Your task to perform on an android device: turn on location history Image 0: 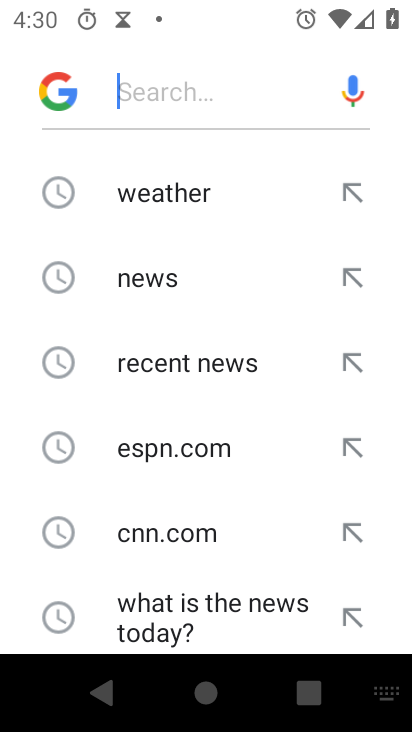
Step 0: press home button
Your task to perform on an android device: turn on location history Image 1: 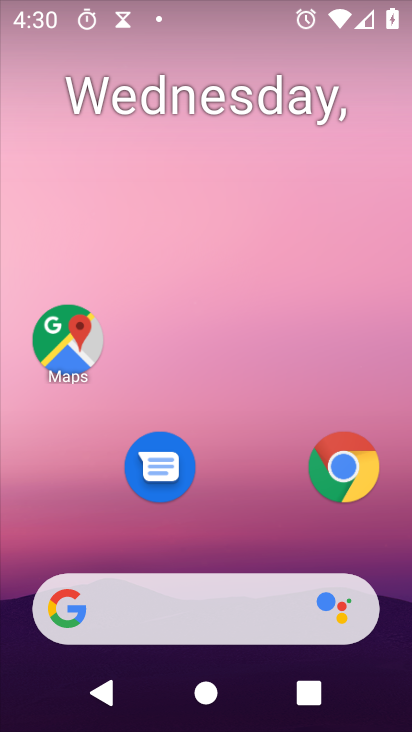
Step 1: drag from (230, 557) to (65, 133)
Your task to perform on an android device: turn on location history Image 2: 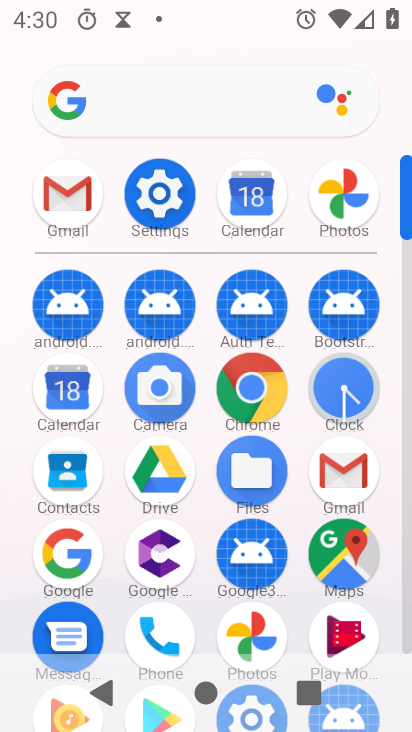
Step 2: click (173, 210)
Your task to perform on an android device: turn on location history Image 3: 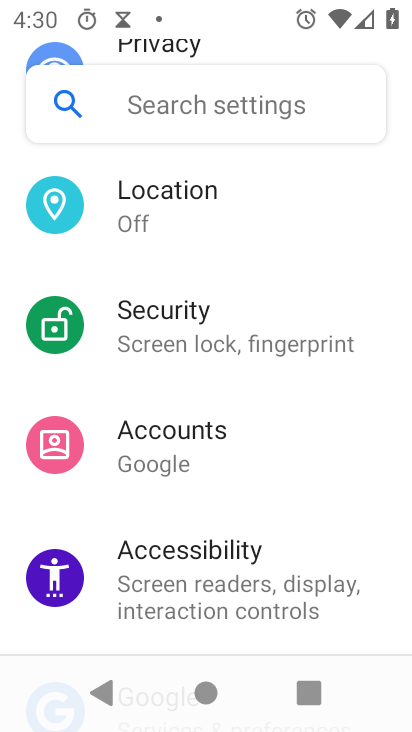
Step 3: click (238, 198)
Your task to perform on an android device: turn on location history Image 4: 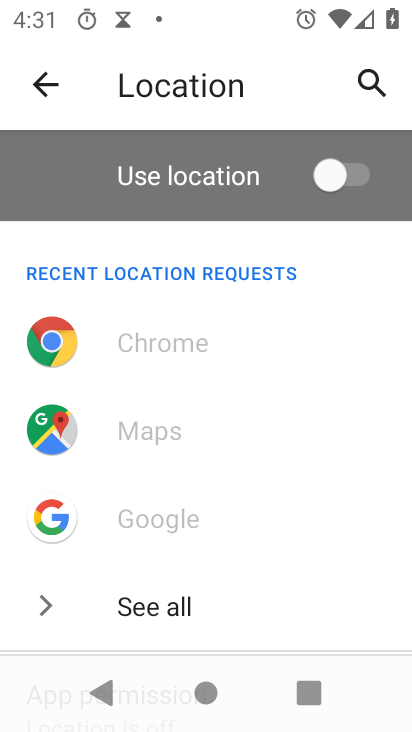
Step 4: drag from (310, 624) to (282, 163)
Your task to perform on an android device: turn on location history Image 5: 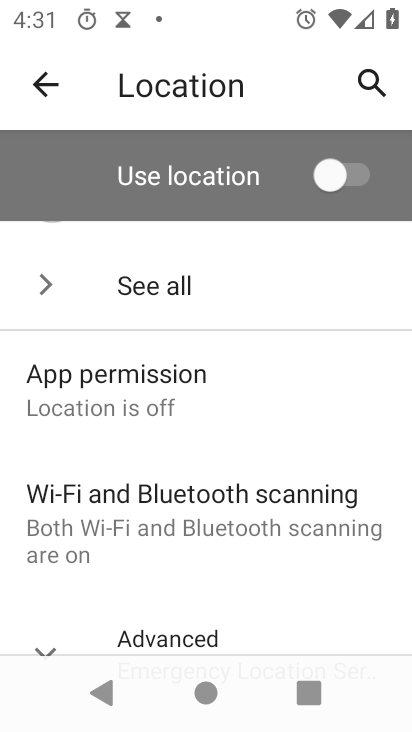
Step 5: drag from (310, 545) to (296, 223)
Your task to perform on an android device: turn on location history Image 6: 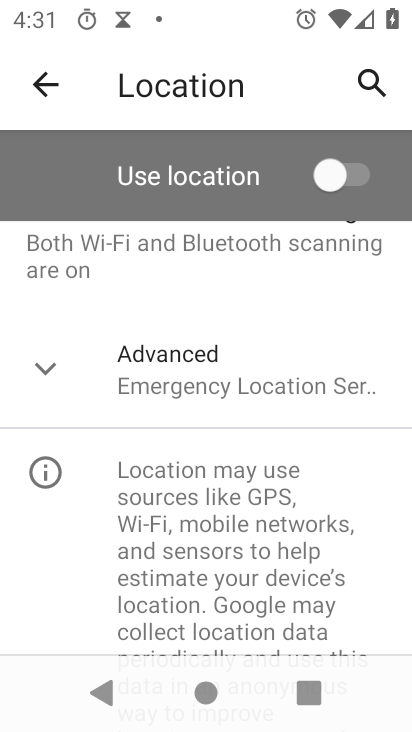
Step 6: drag from (290, 476) to (278, 667)
Your task to perform on an android device: turn on location history Image 7: 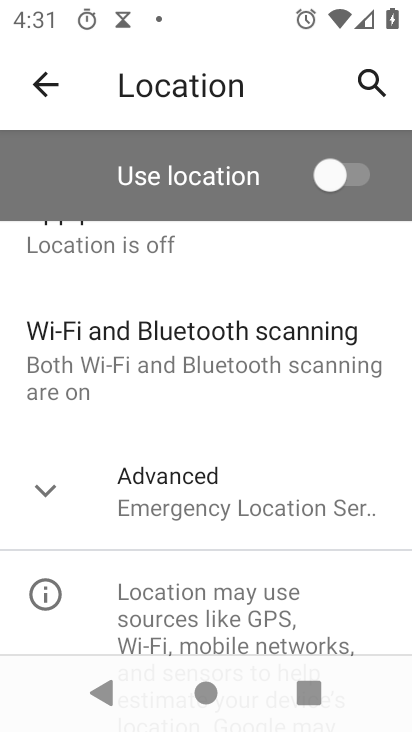
Step 7: drag from (273, 265) to (284, 509)
Your task to perform on an android device: turn on location history Image 8: 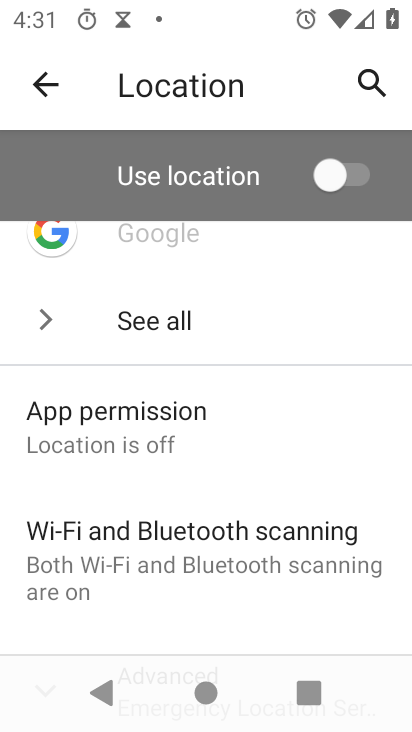
Step 8: press home button
Your task to perform on an android device: turn on location history Image 9: 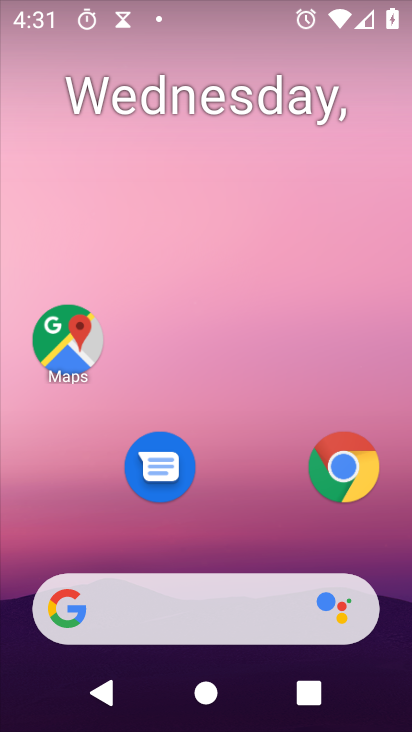
Step 9: click (282, 516)
Your task to perform on an android device: turn on location history Image 10: 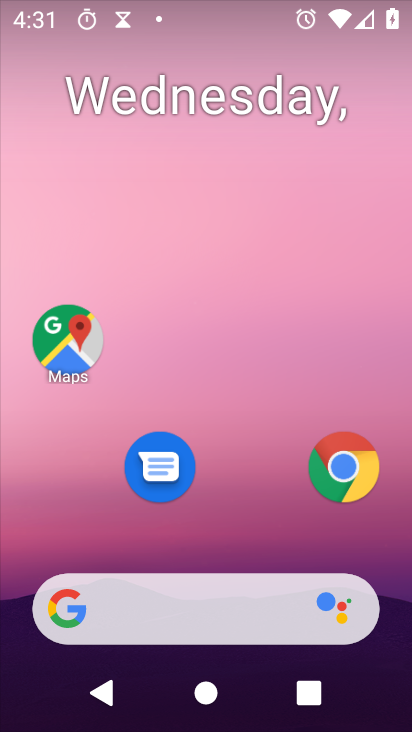
Step 10: click (83, 352)
Your task to perform on an android device: turn on location history Image 11: 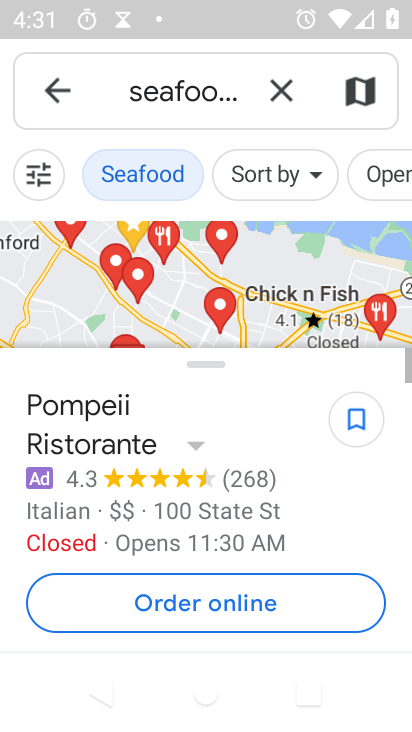
Step 11: click (62, 93)
Your task to perform on an android device: turn on location history Image 12: 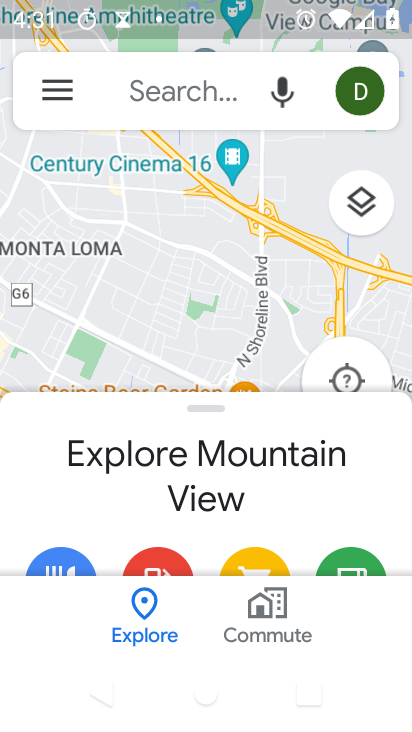
Step 12: click (68, 105)
Your task to perform on an android device: turn on location history Image 13: 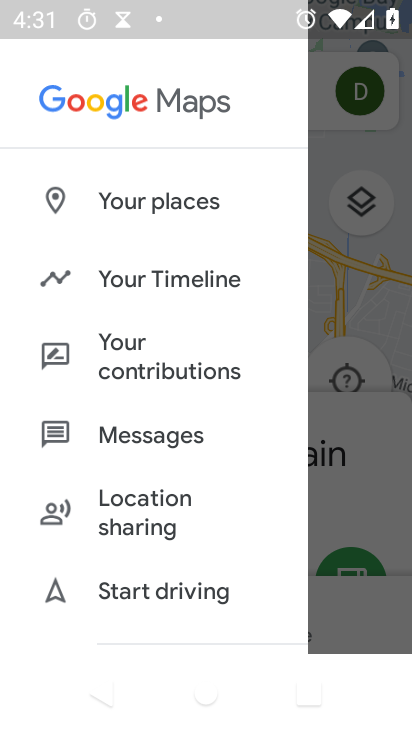
Step 13: click (166, 284)
Your task to perform on an android device: turn on location history Image 14: 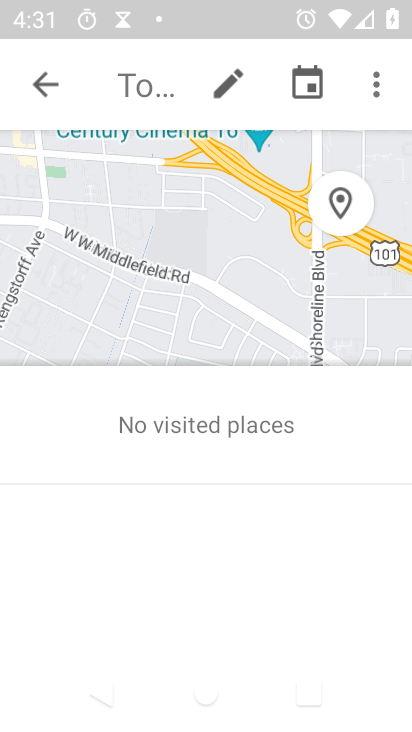
Step 14: click (392, 82)
Your task to perform on an android device: turn on location history Image 15: 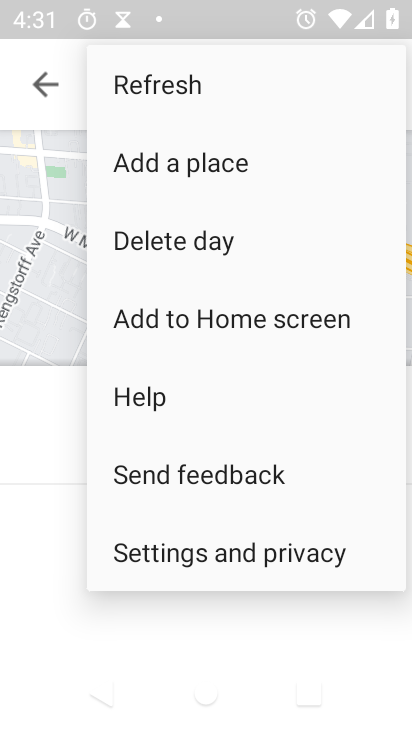
Step 15: click (254, 570)
Your task to perform on an android device: turn on location history Image 16: 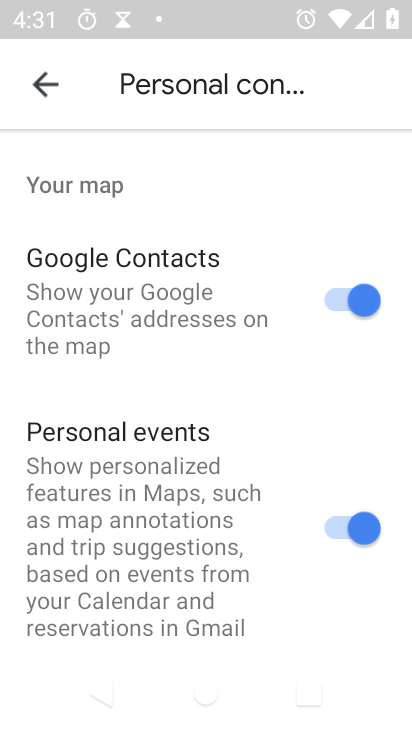
Step 16: drag from (275, 647) to (223, 164)
Your task to perform on an android device: turn on location history Image 17: 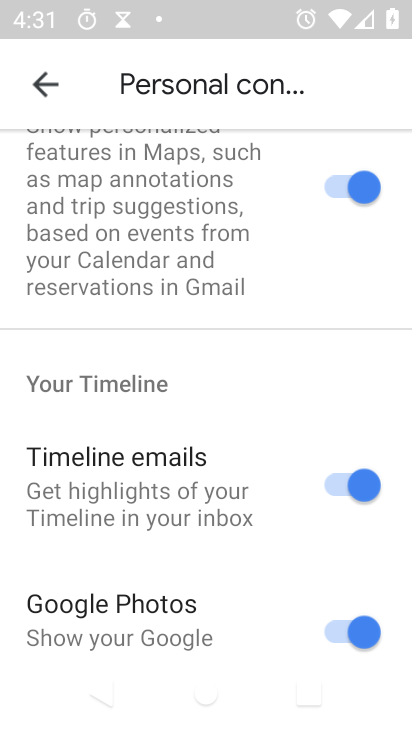
Step 17: drag from (246, 596) to (178, 128)
Your task to perform on an android device: turn on location history Image 18: 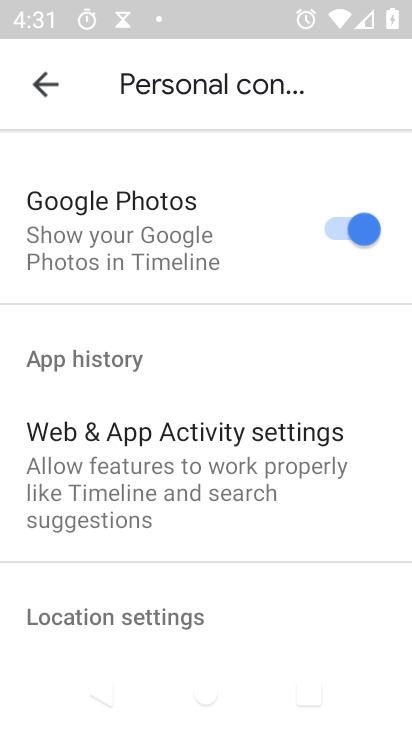
Step 18: drag from (208, 562) to (184, 122)
Your task to perform on an android device: turn on location history Image 19: 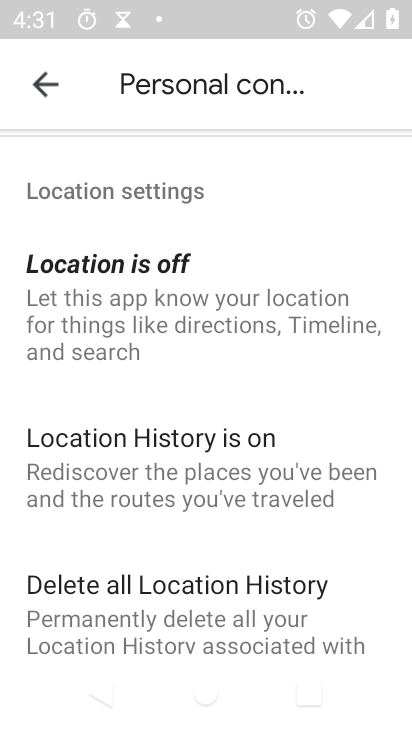
Step 19: click (209, 501)
Your task to perform on an android device: turn on location history Image 20: 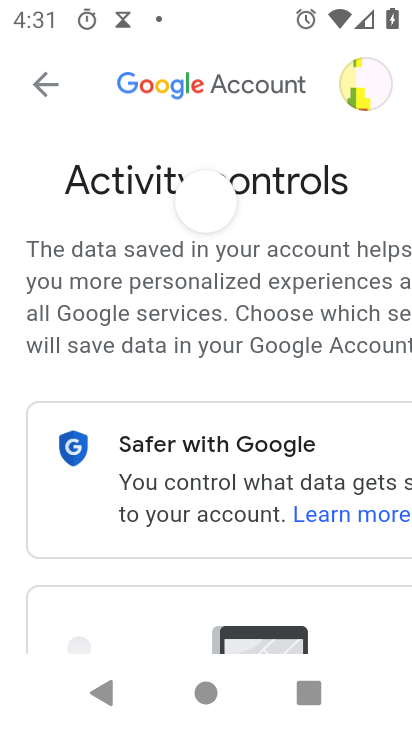
Step 20: drag from (283, 623) to (209, 94)
Your task to perform on an android device: turn on location history Image 21: 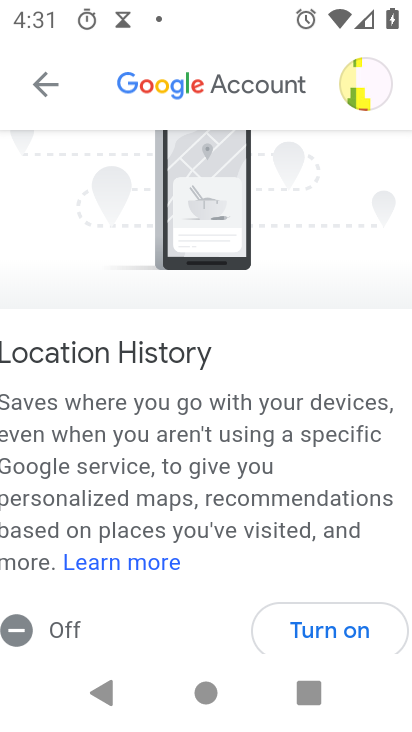
Step 21: click (334, 631)
Your task to perform on an android device: turn on location history Image 22: 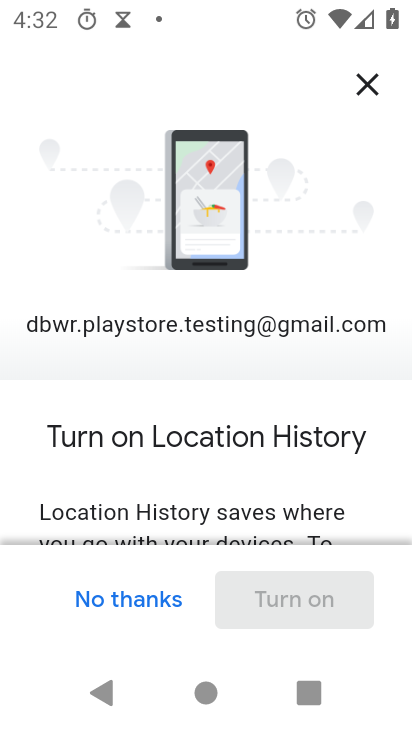
Step 22: drag from (355, 473) to (303, 82)
Your task to perform on an android device: turn on location history Image 23: 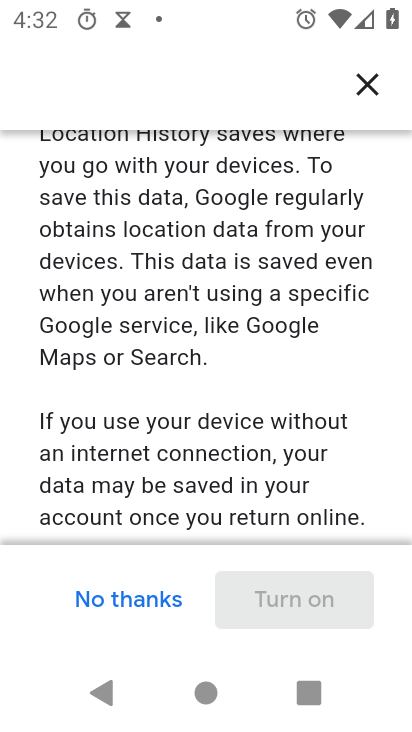
Step 23: drag from (326, 495) to (246, 107)
Your task to perform on an android device: turn on location history Image 24: 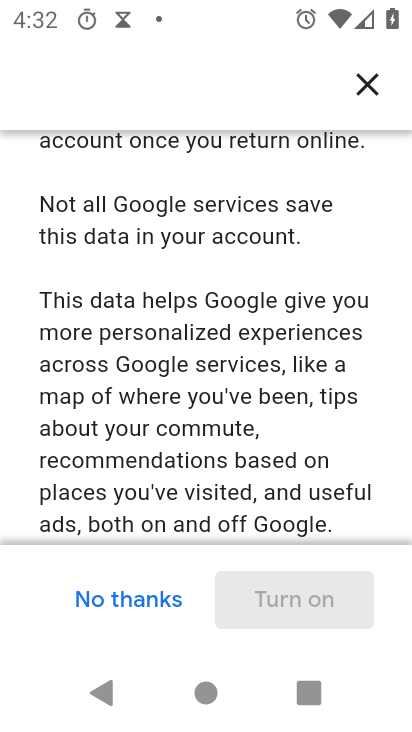
Step 24: drag from (320, 501) to (257, 127)
Your task to perform on an android device: turn on location history Image 25: 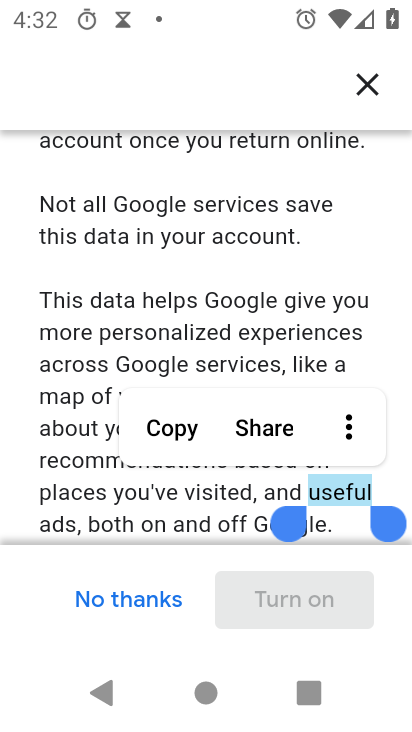
Step 25: click (225, 493)
Your task to perform on an android device: turn on location history Image 26: 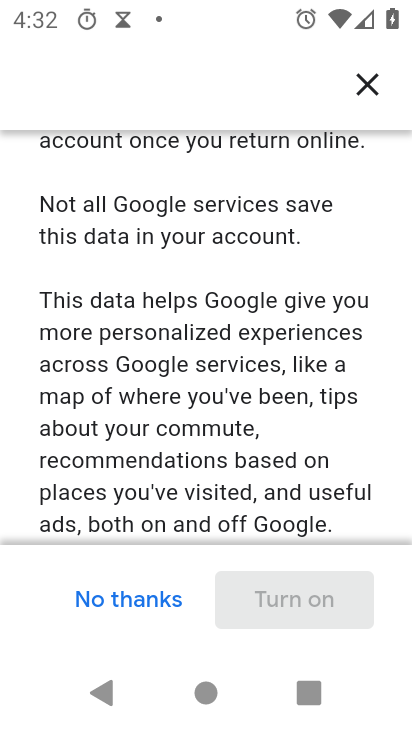
Step 26: drag from (225, 493) to (226, 138)
Your task to perform on an android device: turn on location history Image 27: 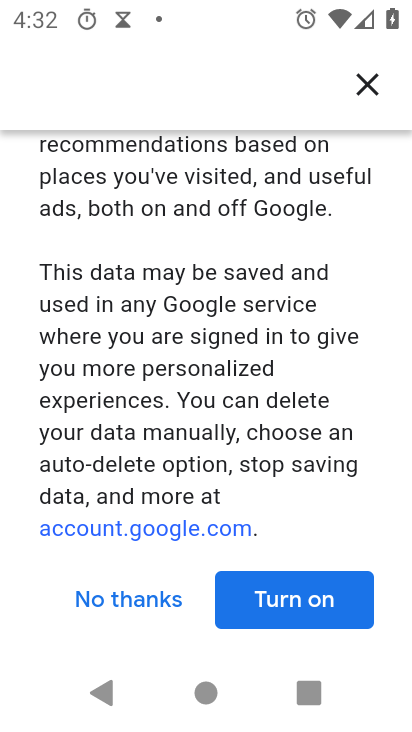
Step 27: click (304, 599)
Your task to perform on an android device: turn on location history Image 28: 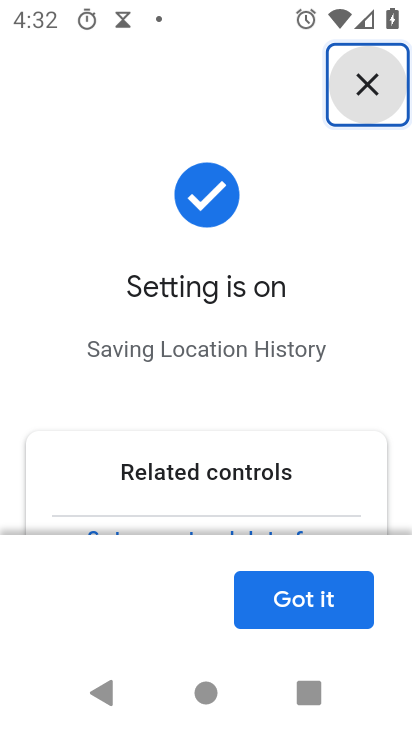
Step 28: click (304, 599)
Your task to perform on an android device: turn on location history Image 29: 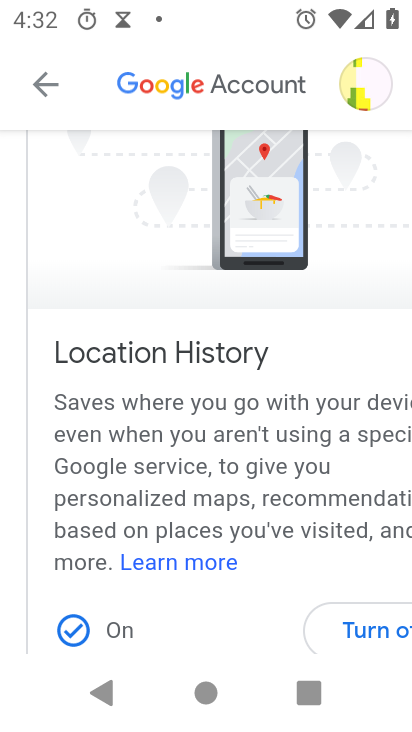
Step 29: task complete